Your task to perform on an android device: Go to calendar. Show me events next week Image 0: 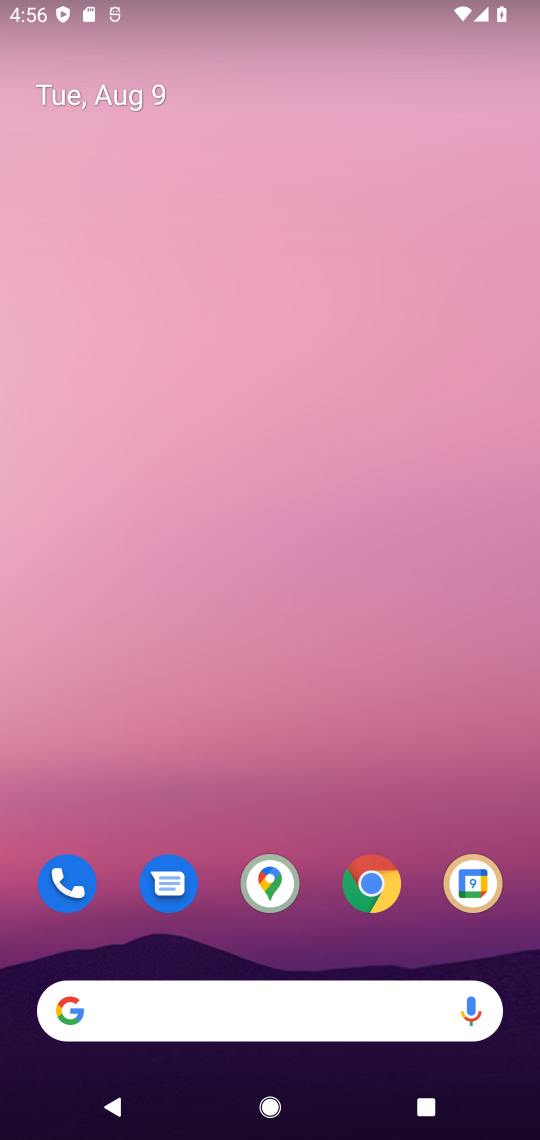
Step 0: drag from (225, 836) to (225, 192)
Your task to perform on an android device: Go to calendar. Show me events next week Image 1: 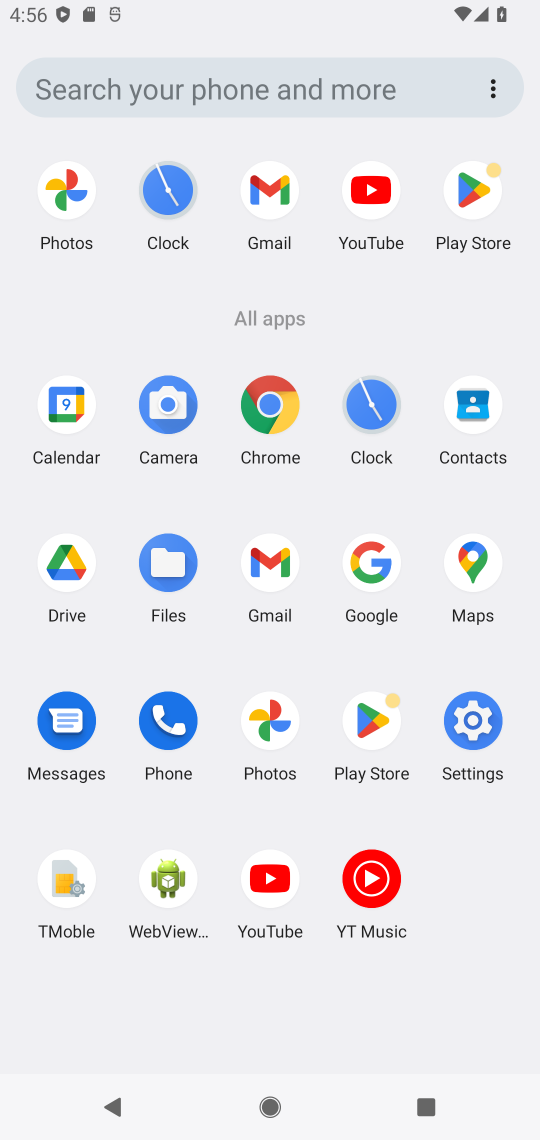
Step 1: click (72, 421)
Your task to perform on an android device: Go to calendar. Show me events next week Image 2: 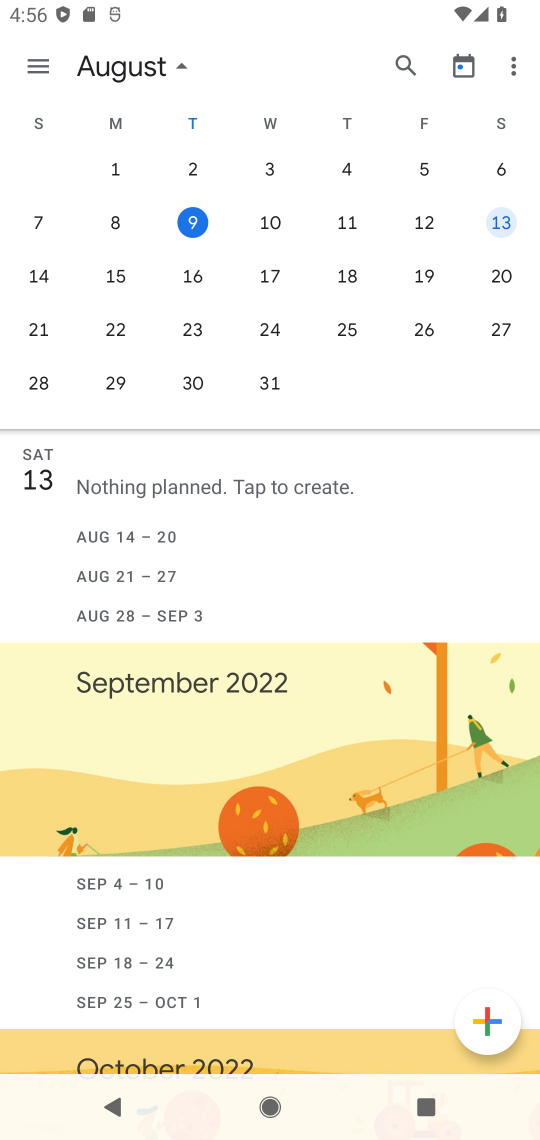
Step 2: click (259, 229)
Your task to perform on an android device: Go to calendar. Show me events next week Image 3: 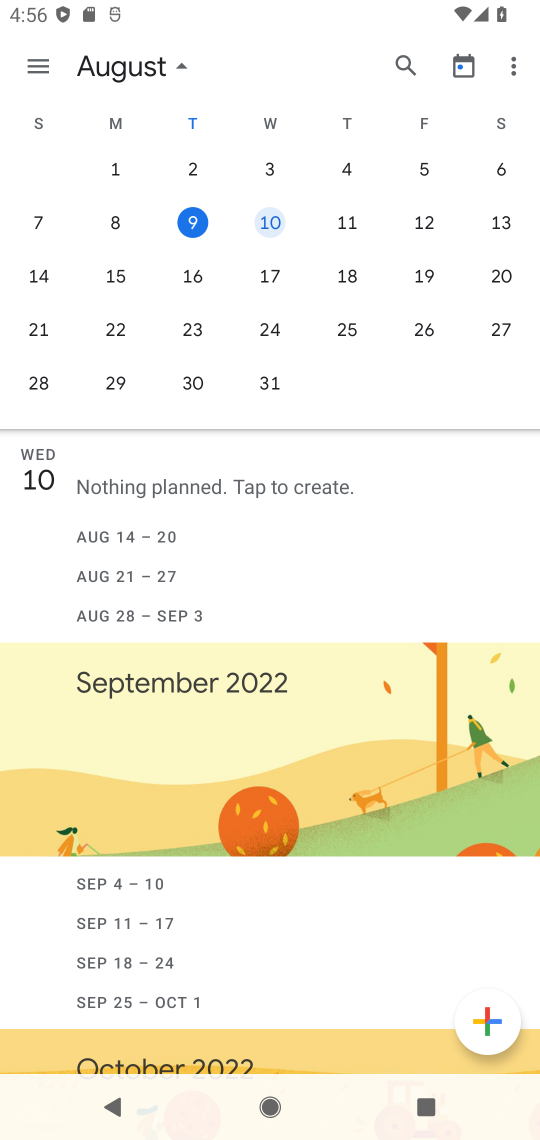
Step 3: click (357, 219)
Your task to perform on an android device: Go to calendar. Show me events next week Image 4: 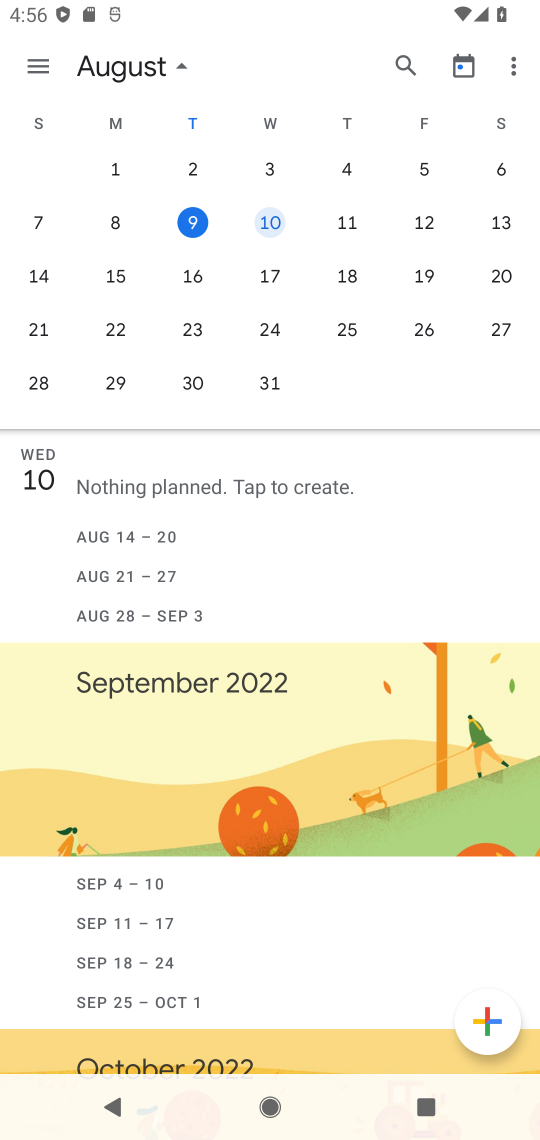
Step 4: click (449, 219)
Your task to perform on an android device: Go to calendar. Show me events next week Image 5: 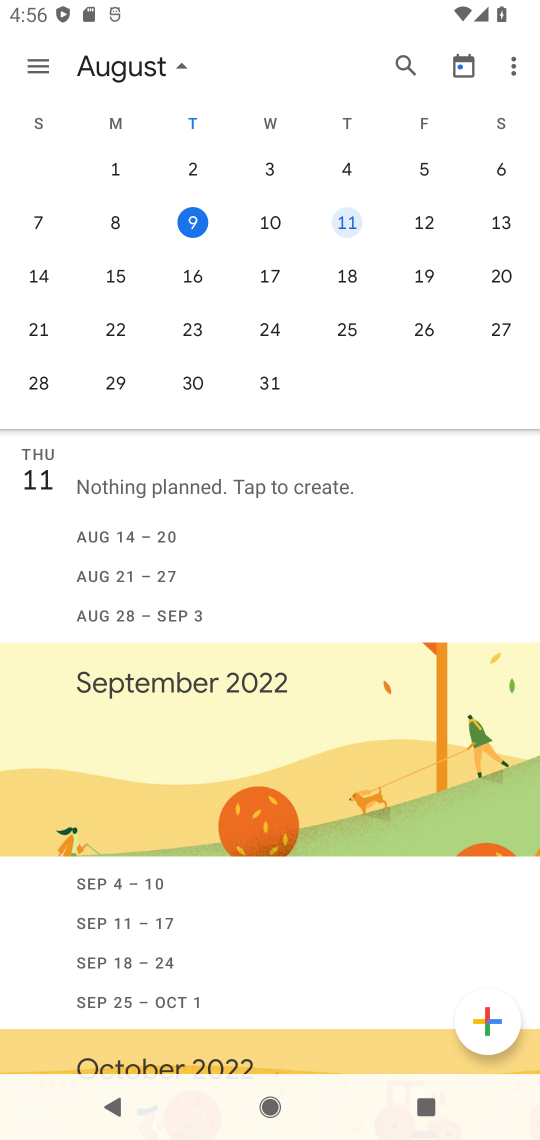
Step 5: click (507, 217)
Your task to perform on an android device: Go to calendar. Show me events next week Image 6: 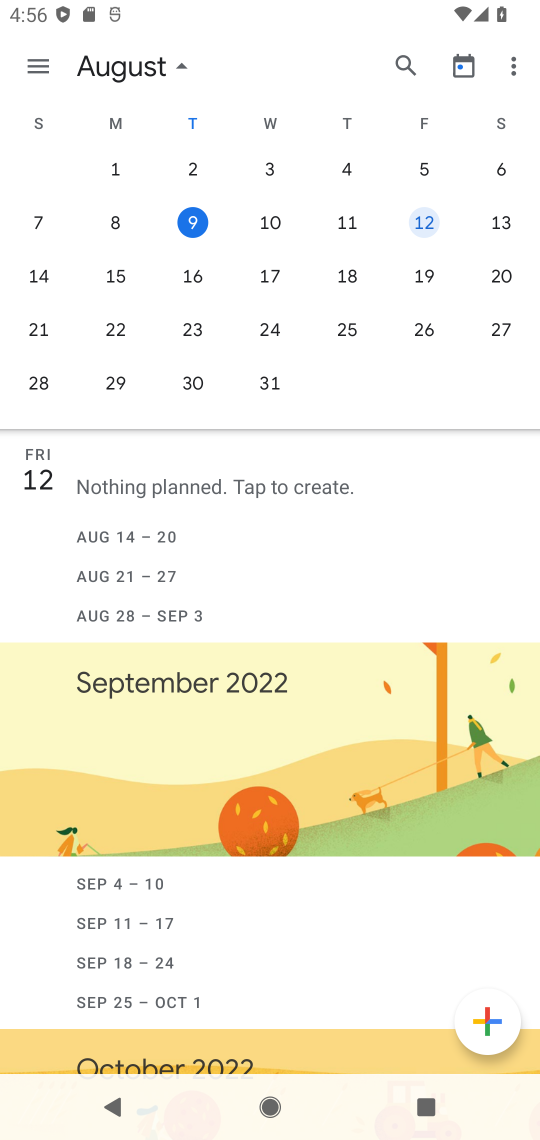
Step 6: click (495, 210)
Your task to perform on an android device: Go to calendar. Show me events next week Image 7: 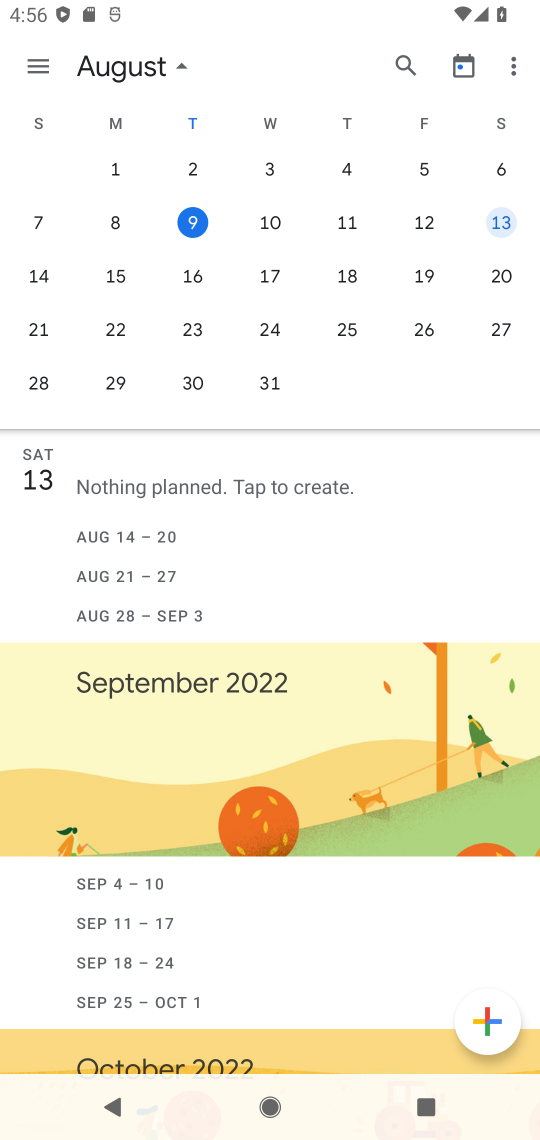
Step 7: click (40, 286)
Your task to perform on an android device: Go to calendar. Show me events next week Image 8: 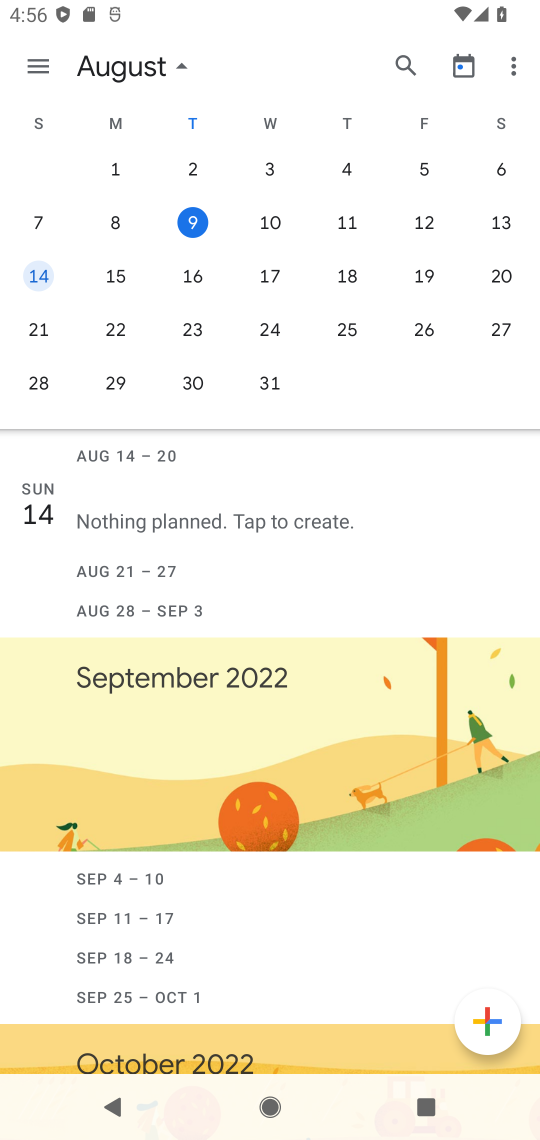
Step 8: task complete